Your task to perform on an android device: set the stopwatch Image 0: 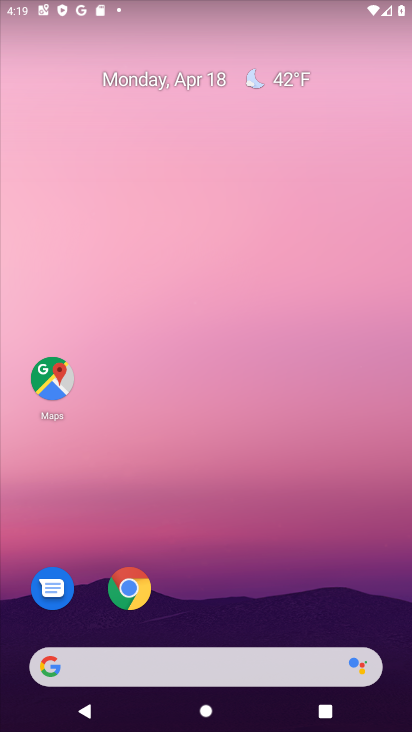
Step 0: drag from (219, 573) to (219, 244)
Your task to perform on an android device: set the stopwatch Image 1: 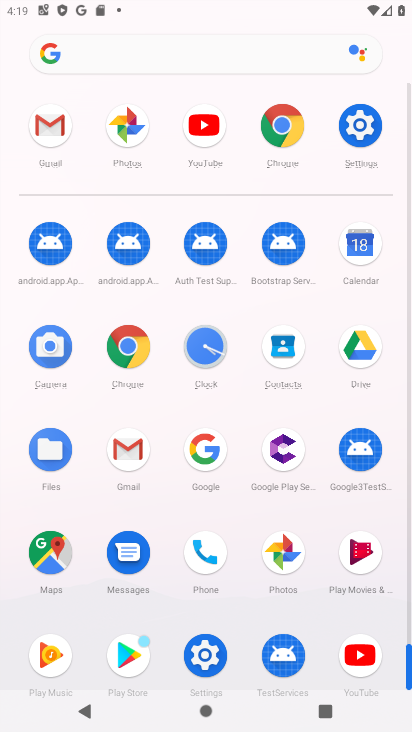
Step 1: click (201, 359)
Your task to perform on an android device: set the stopwatch Image 2: 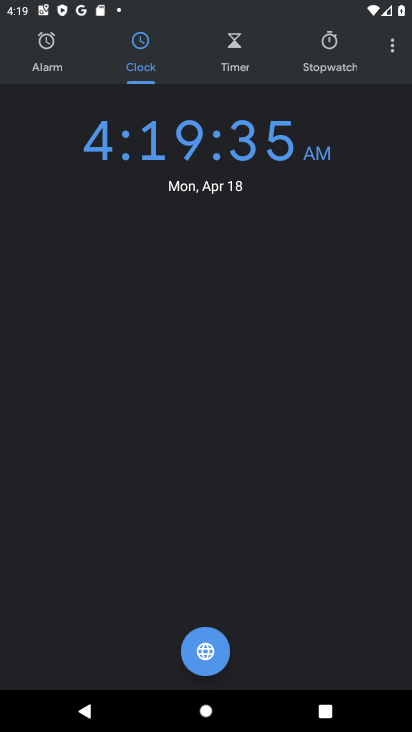
Step 2: click (229, 62)
Your task to perform on an android device: set the stopwatch Image 3: 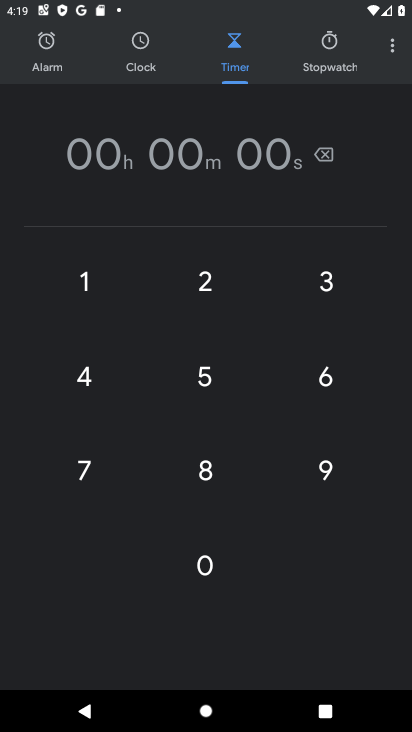
Step 3: click (86, 321)
Your task to perform on an android device: set the stopwatch Image 4: 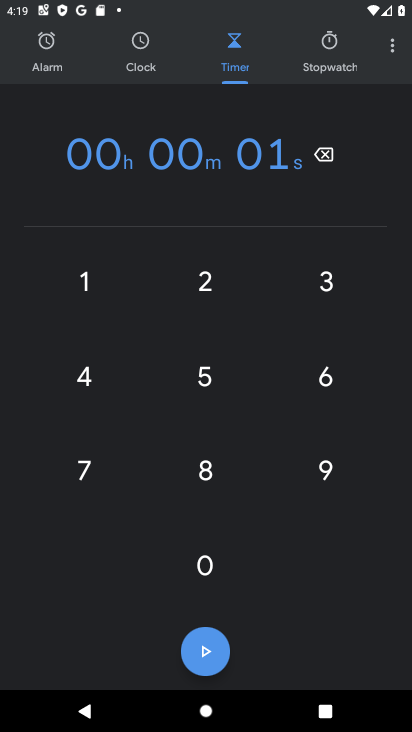
Step 4: click (198, 253)
Your task to perform on an android device: set the stopwatch Image 5: 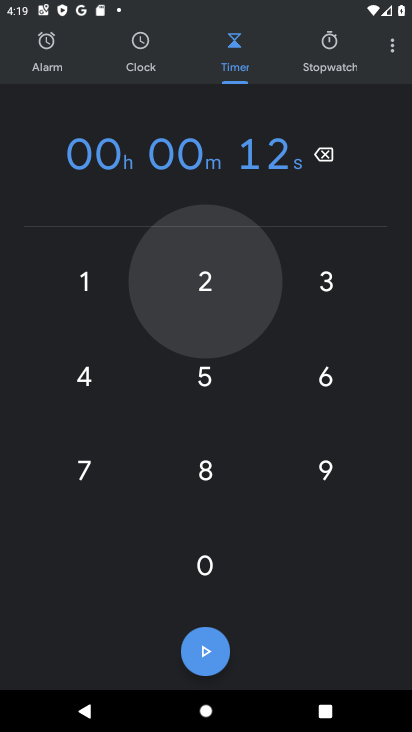
Step 5: click (193, 297)
Your task to perform on an android device: set the stopwatch Image 6: 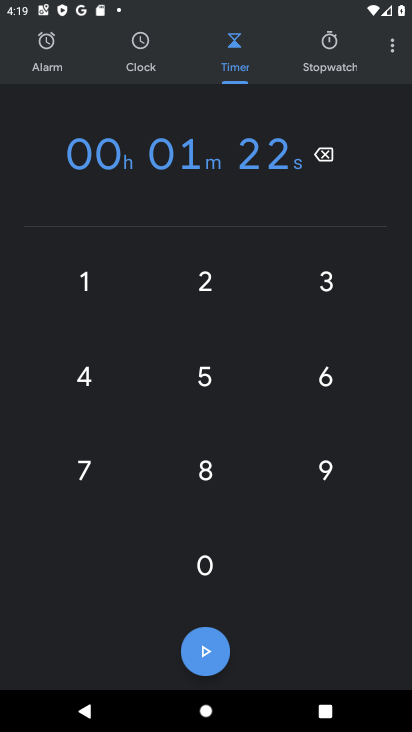
Step 6: click (206, 655)
Your task to perform on an android device: set the stopwatch Image 7: 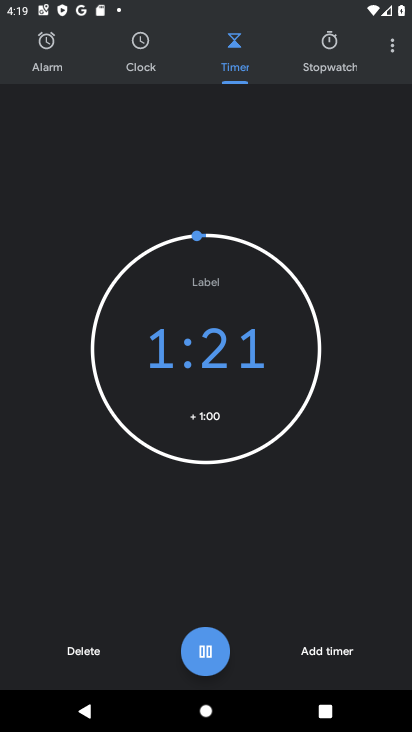
Step 7: task complete